Your task to perform on an android device: Go to location settings Image 0: 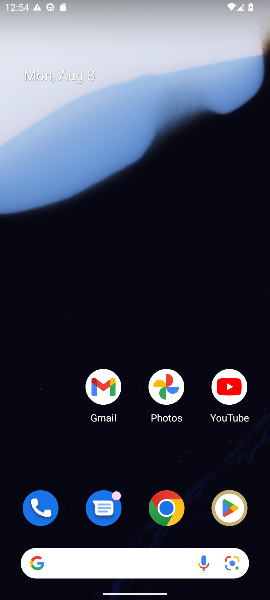
Step 0: drag from (133, 500) to (201, 42)
Your task to perform on an android device: Go to location settings Image 1: 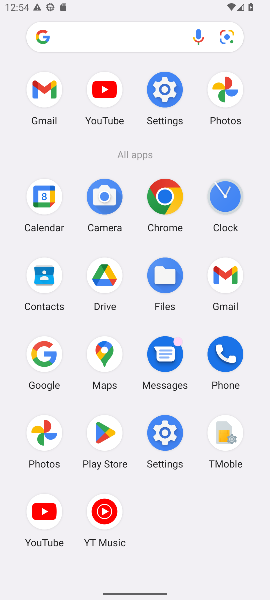
Step 1: click (159, 86)
Your task to perform on an android device: Go to location settings Image 2: 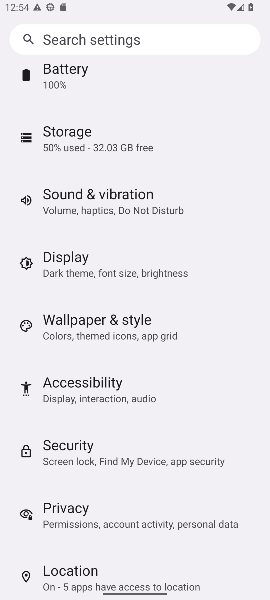
Step 2: click (78, 584)
Your task to perform on an android device: Go to location settings Image 3: 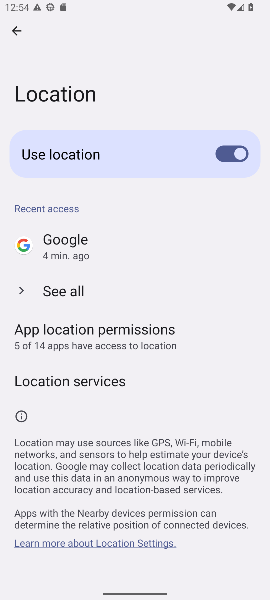
Step 3: task complete